Your task to perform on an android device: What's the weather? Image 0: 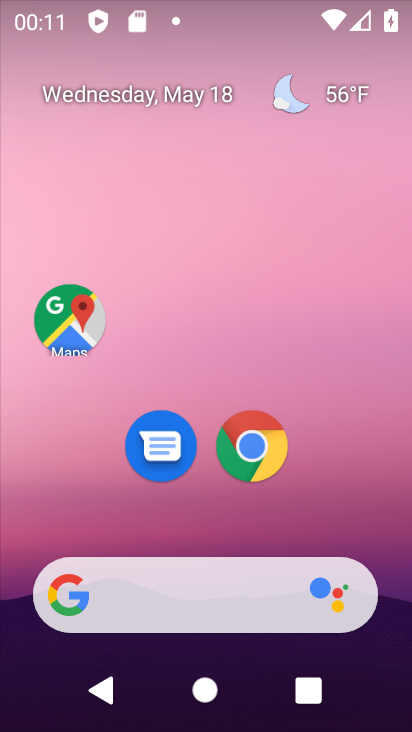
Step 0: drag from (247, 695) to (143, 222)
Your task to perform on an android device: What's the weather? Image 1: 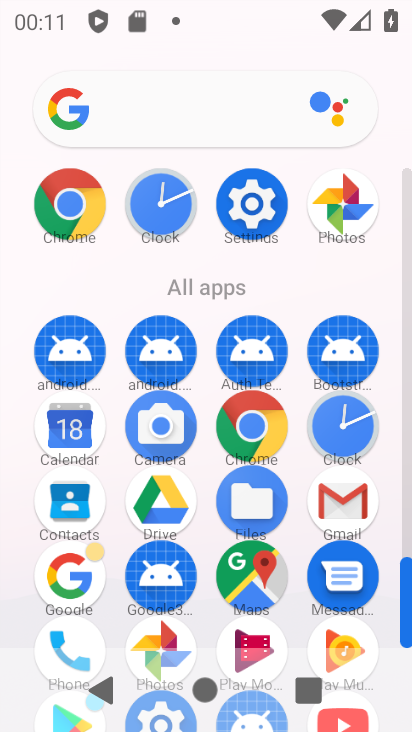
Step 1: press back button
Your task to perform on an android device: What's the weather? Image 2: 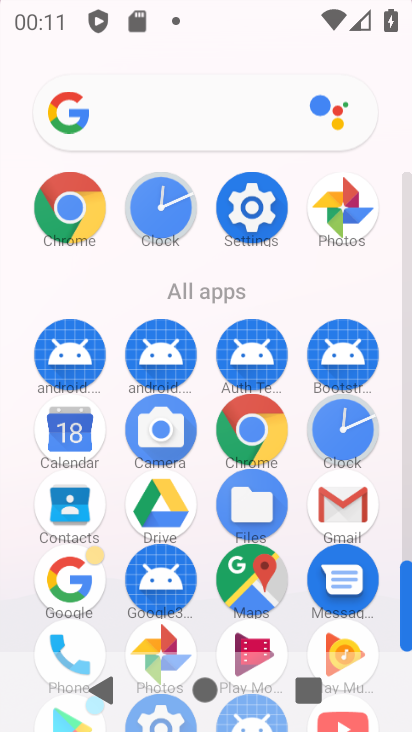
Step 2: press back button
Your task to perform on an android device: What's the weather? Image 3: 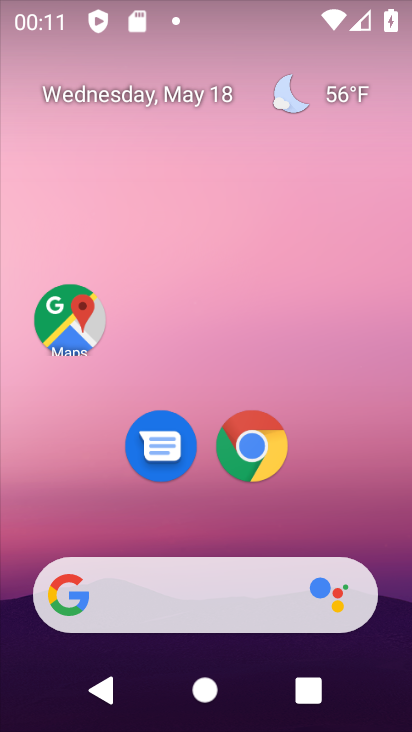
Step 3: press back button
Your task to perform on an android device: What's the weather? Image 4: 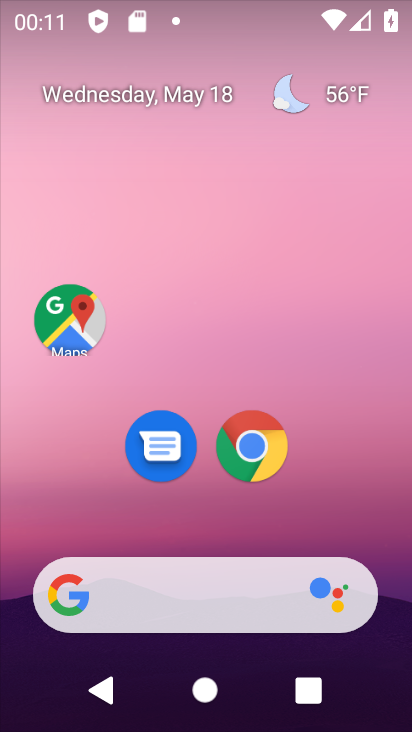
Step 4: drag from (13, 190) to (381, 311)
Your task to perform on an android device: What's the weather? Image 5: 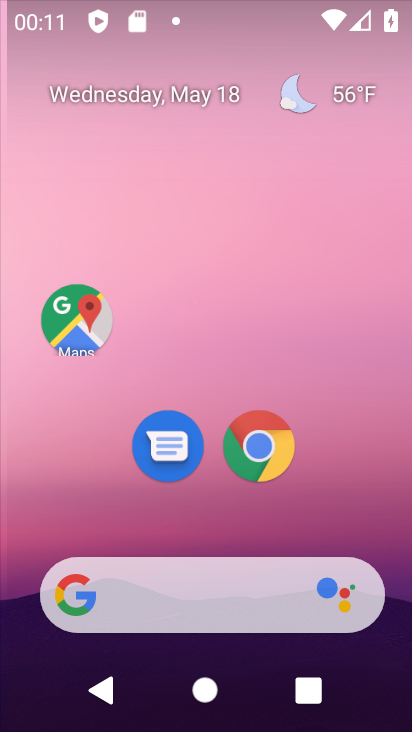
Step 5: drag from (18, 206) to (400, 403)
Your task to perform on an android device: What's the weather? Image 6: 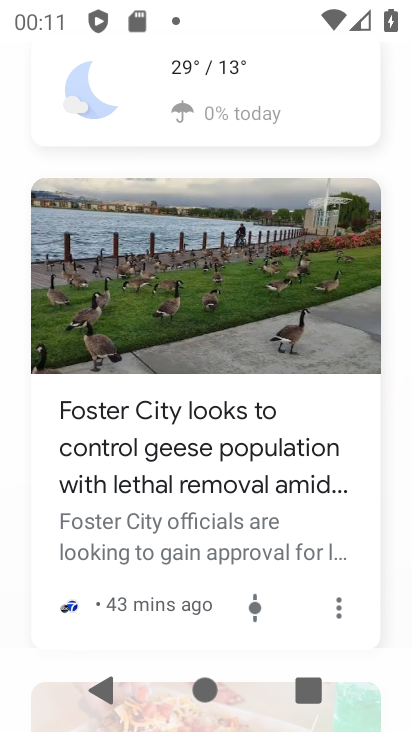
Step 6: click (197, 87)
Your task to perform on an android device: What's the weather? Image 7: 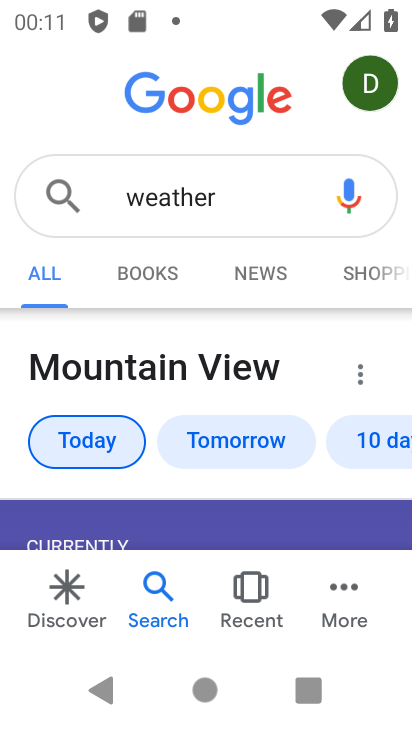
Step 7: task complete